Your task to perform on an android device: Toggle the flashlight Image 0: 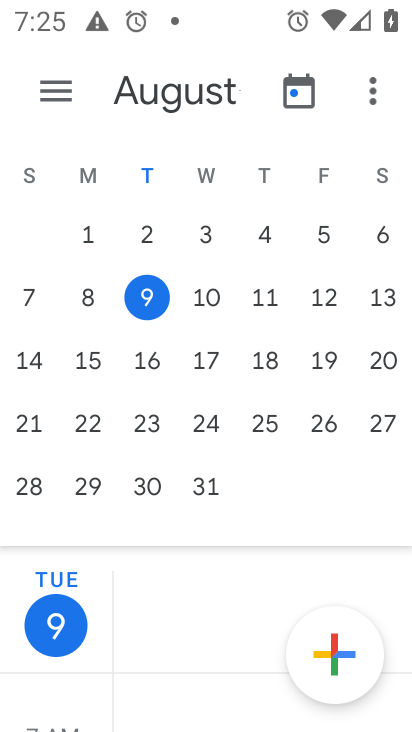
Step 0: press home button
Your task to perform on an android device: Toggle the flashlight Image 1: 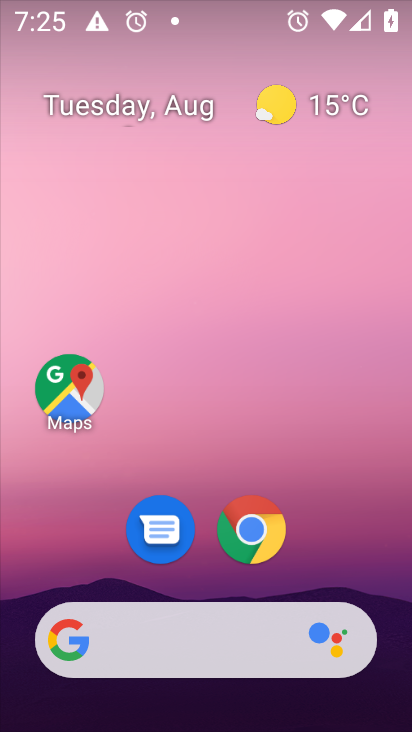
Step 1: task complete